Your task to perform on an android device: allow cookies in the chrome app Image 0: 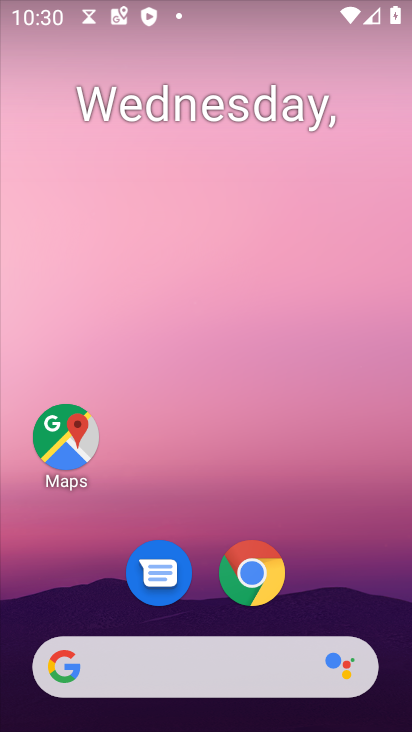
Step 0: click (244, 581)
Your task to perform on an android device: allow cookies in the chrome app Image 1: 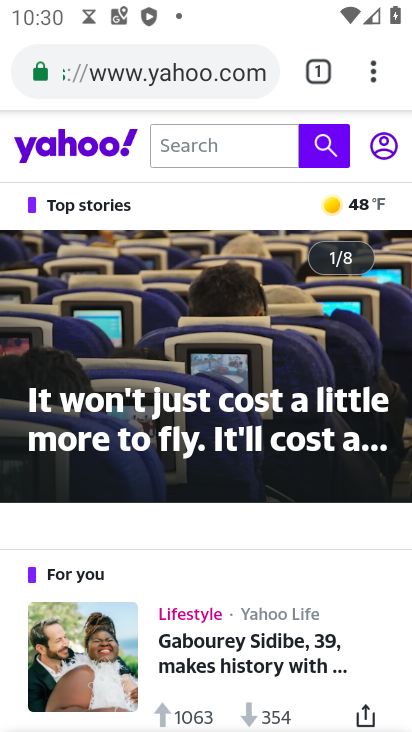
Step 1: click (377, 74)
Your task to perform on an android device: allow cookies in the chrome app Image 2: 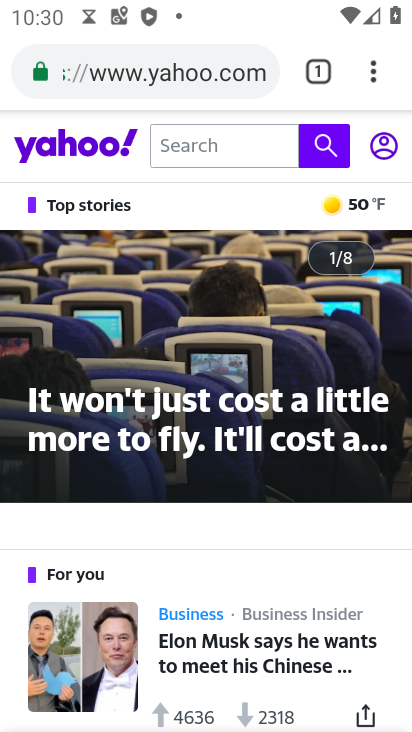
Step 2: click (375, 70)
Your task to perform on an android device: allow cookies in the chrome app Image 3: 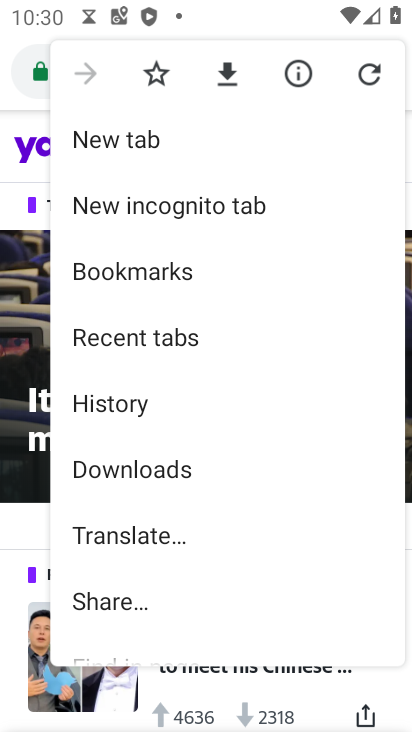
Step 3: drag from (172, 613) to (141, 297)
Your task to perform on an android device: allow cookies in the chrome app Image 4: 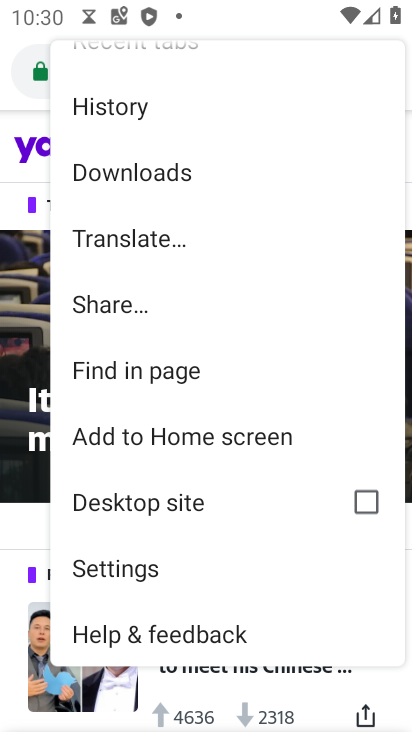
Step 4: click (124, 572)
Your task to perform on an android device: allow cookies in the chrome app Image 5: 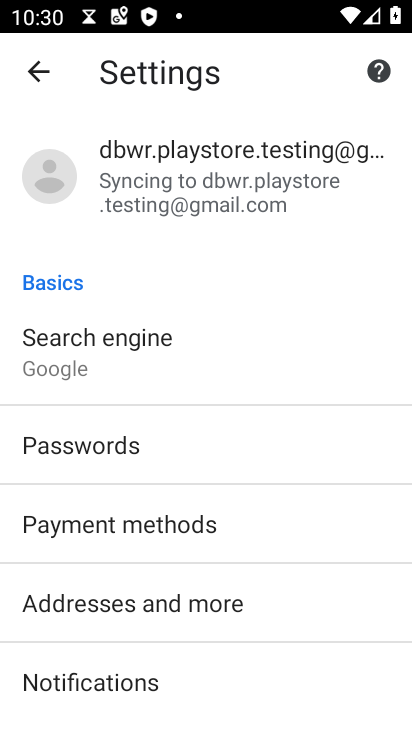
Step 5: drag from (140, 701) to (142, 302)
Your task to perform on an android device: allow cookies in the chrome app Image 6: 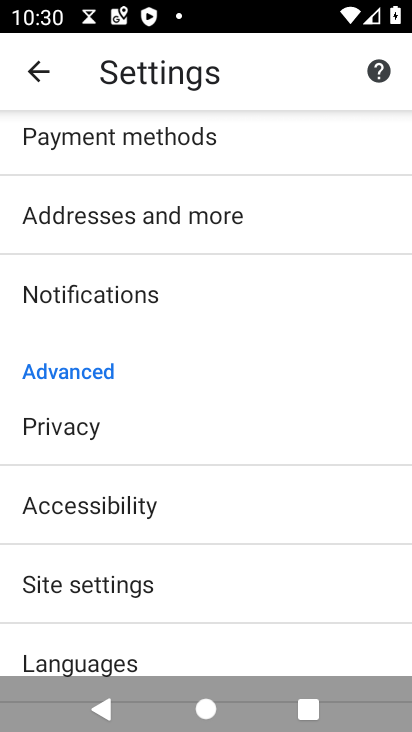
Step 6: drag from (215, 637) to (254, 220)
Your task to perform on an android device: allow cookies in the chrome app Image 7: 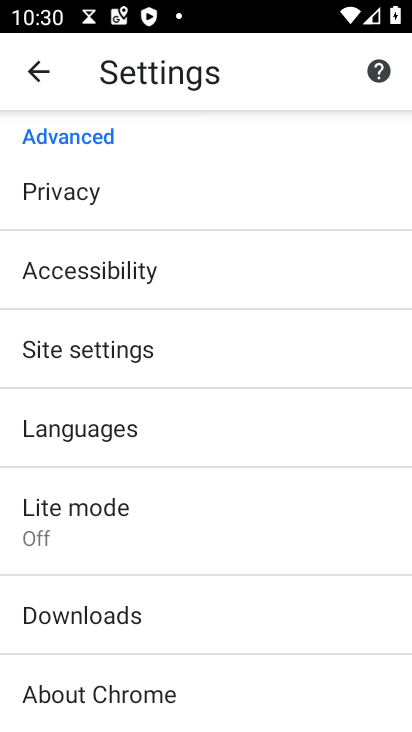
Step 7: click (90, 341)
Your task to perform on an android device: allow cookies in the chrome app Image 8: 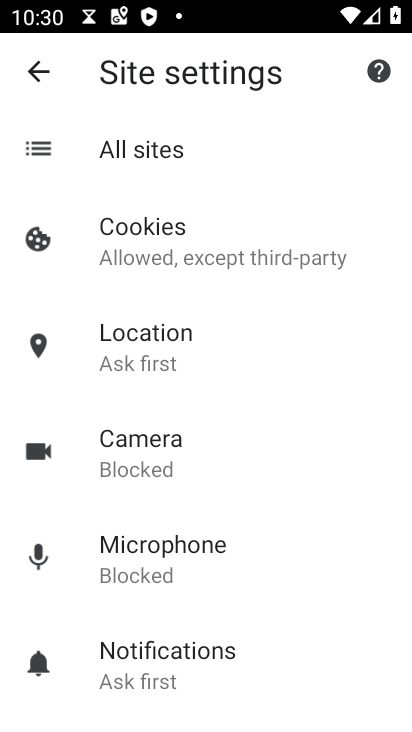
Step 8: click (147, 236)
Your task to perform on an android device: allow cookies in the chrome app Image 9: 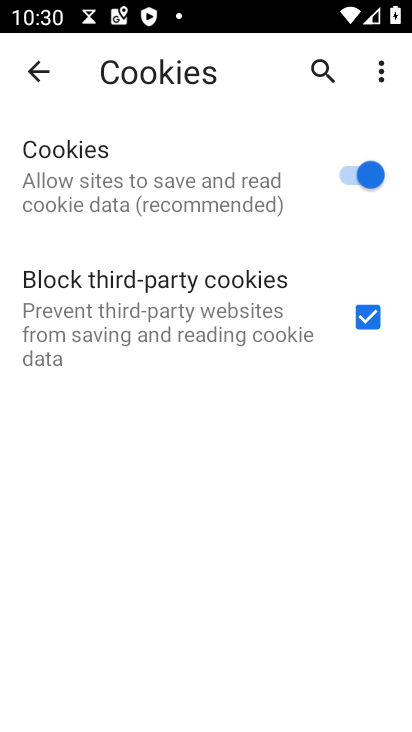
Step 9: task complete